Your task to perform on an android device: Go to display settings Image 0: 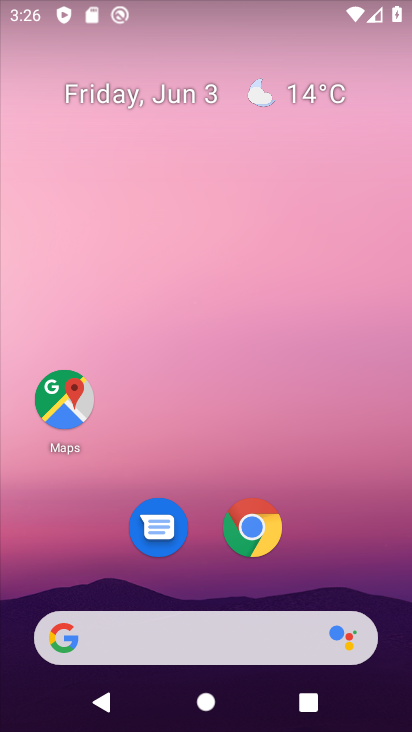
Step 0: drag from (321, 560) to (251, 18)
Your task to perform on an android device: Go to display settings Image 1: 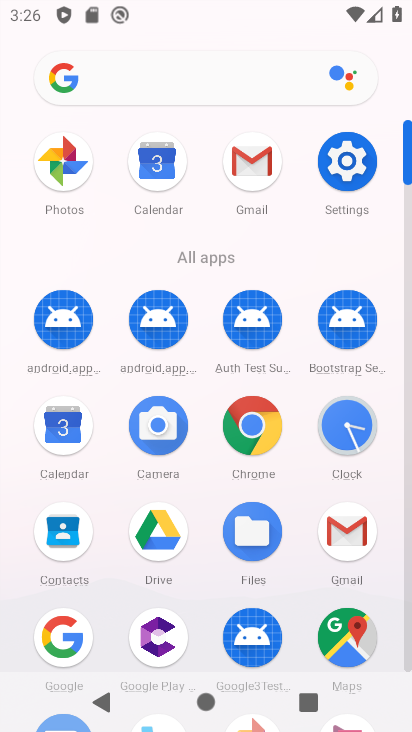
Step 1: click (346, 162)
Your task to perform on an android device: Go to display settings Image 2: 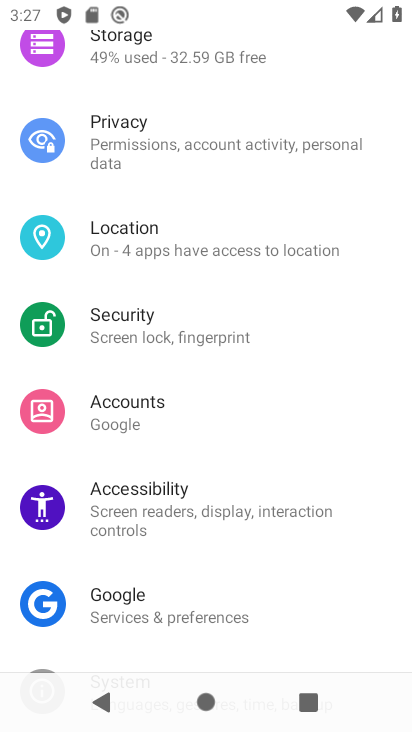
Step 2: drag from (236, 198) to (286, 407)
Your task to perform on an android device: Go to display settings Image 3: 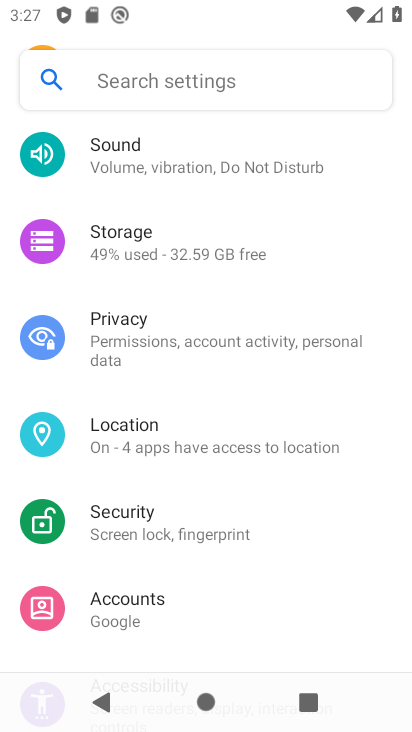
Step 3: drag from (247, 292) to (290, 578)
Your task to perform on an android device: Go to display settings Image 4: 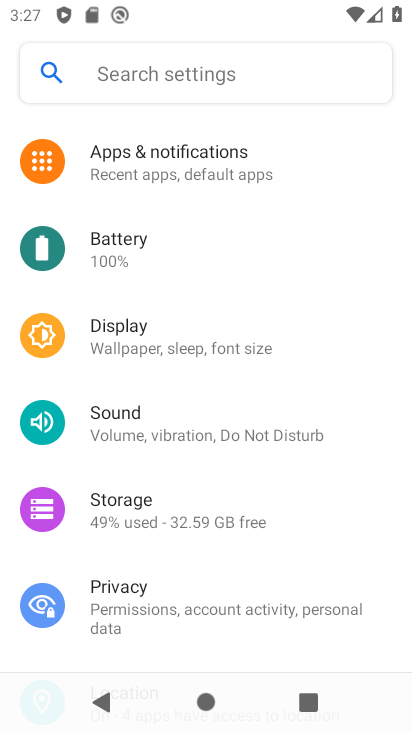
Step 4: click (195, 348)
Your task to perform on an android device: Go to display settings Image 5: 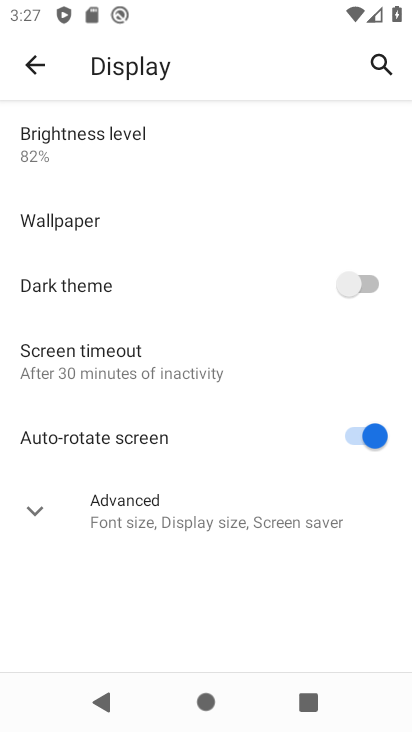
Step 5: task complete